Your task to perform on an android device: allow notifications from all sites in the chrome app Image 0: 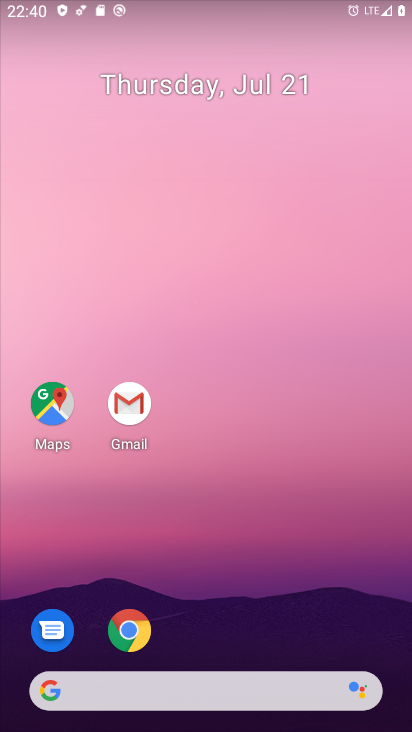
Step 0: drag from (230, 649) to (179, 258)
Your task to perform on an android device: allow notifications from all sites in the chrome app Image 1: 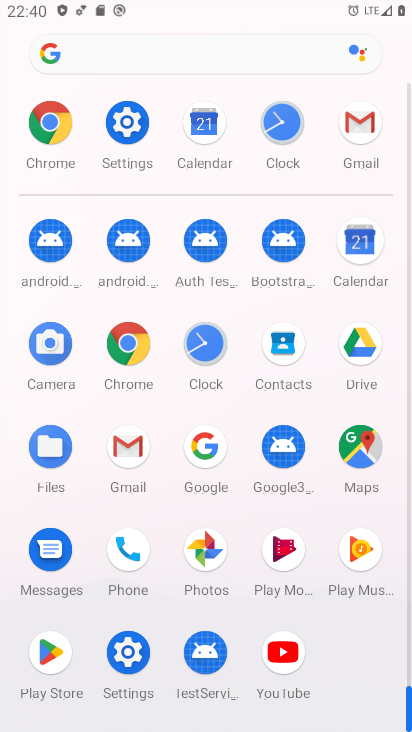
Step 1: click (121, 122)
Your task to perform on an android device: allow notifications from all sites in the chrome app Image 2: 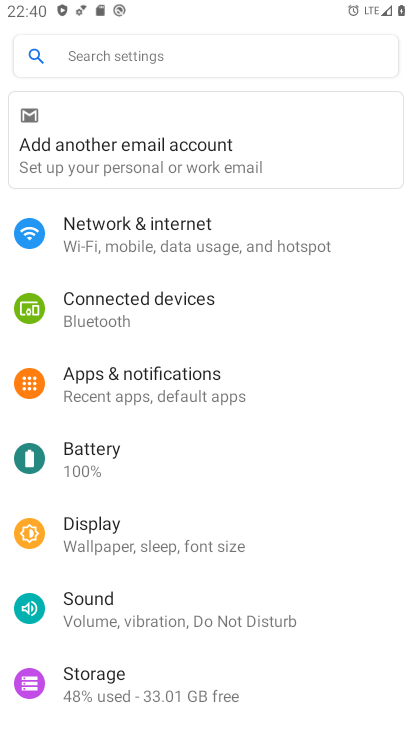
Step 2: click (135, 386)
Your task to perform on an android device: allow notifications from all sites in the chrome app Image 3: 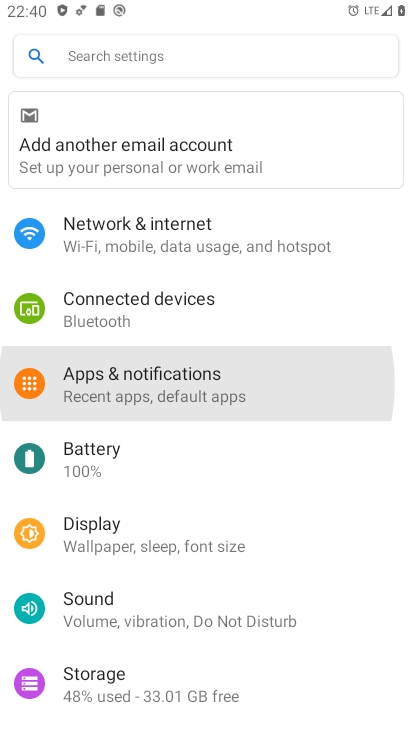
Step 3: click (129, 388)
Your task to perform on an android device: allow notifications from all sites in the chrome app Image 4: 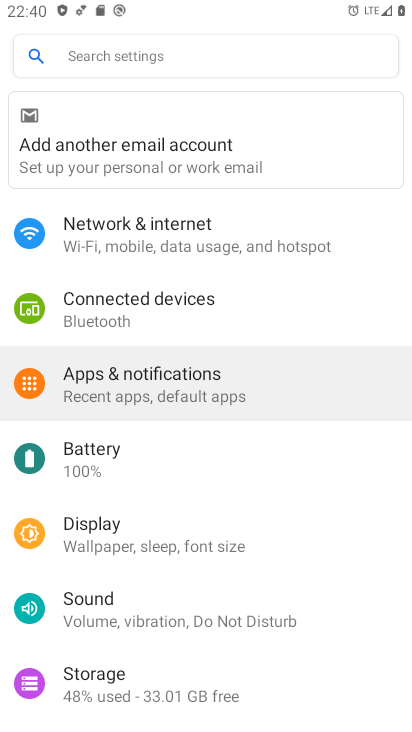
Step 4: click (129, 388)
Your task to perform on an android device: allow notifications from all sites in the chrome app Image 5: 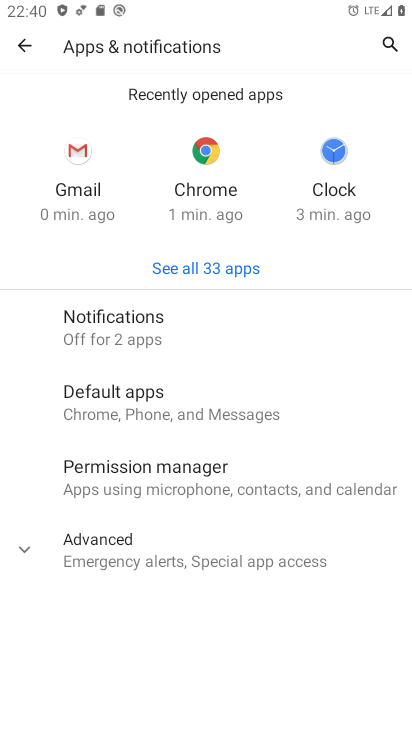
Step 5: click (122, 330)
Your task to perform on an android device: allow notifications from all sites in the chrome app Image 6: 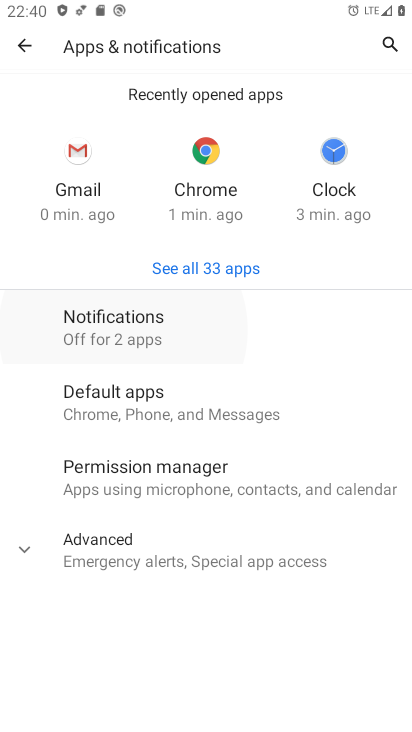
Step 6: click (125, 326)
Your task to perform on an android device: allow notifications from all sites in the chrome app Image 7: 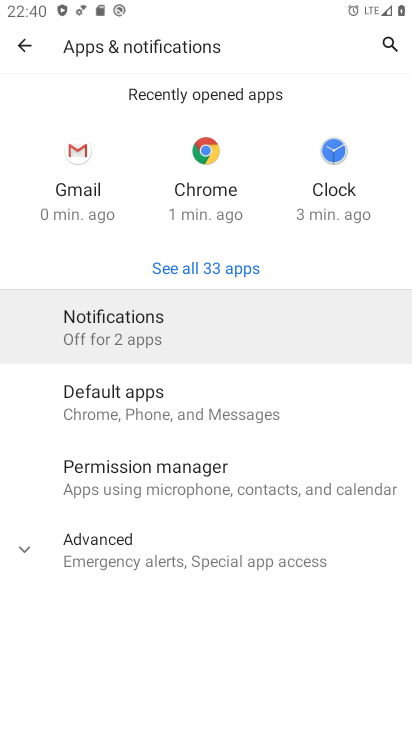
Step 7: click (128, 328)
Your task to perform on an android device: allow notifications from all sites in the chrome app Image 8: 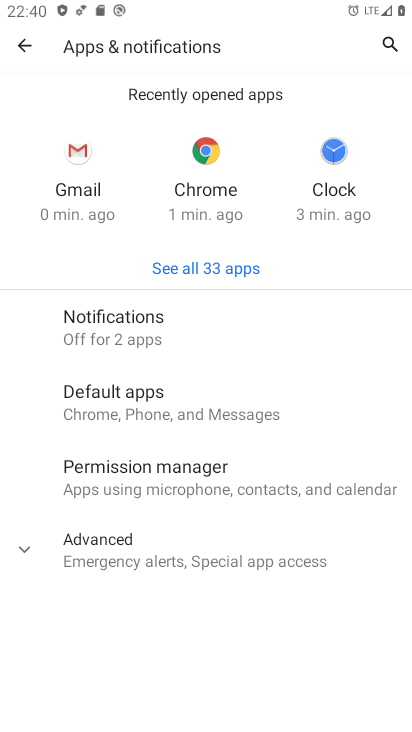
Step 8: click (129, 329)
Your task to perform on an android device: allow notifications from all sites in the chrome app Image 9: 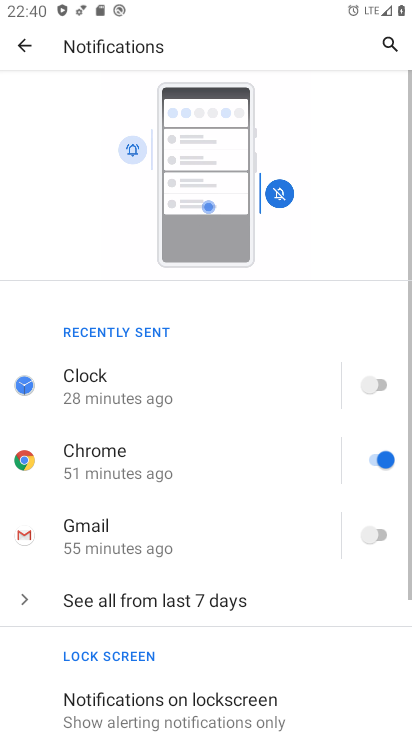
Step 9: drag from (263, 509) to (229, 193)
Your task to perform on an android device: allow notifications from all sites in the chrome app Image 10: 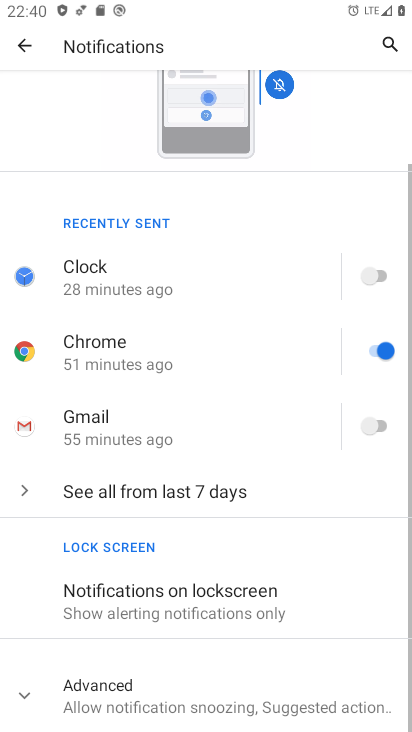
Step 10: drag from (282, 420) to (303, 164)
Your task to perform on an android device: allow notifications from all sites in the chrome app Image 11: 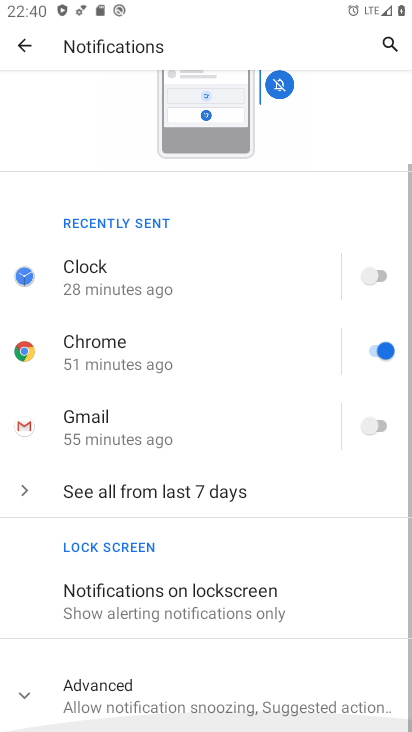
Step 11: drag from (304, 459) to (299, 64)
Your task to perform on an android device: allow notifications from all sites in the chrome app Image 12: 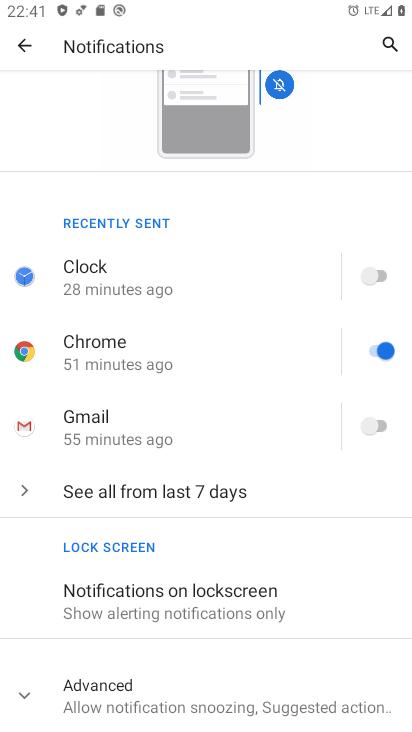
Step 12: drag from (167, 622) to (166, 309)
Your task to perform on an android device: allow notifications from all sites in the chrome app Image 13: 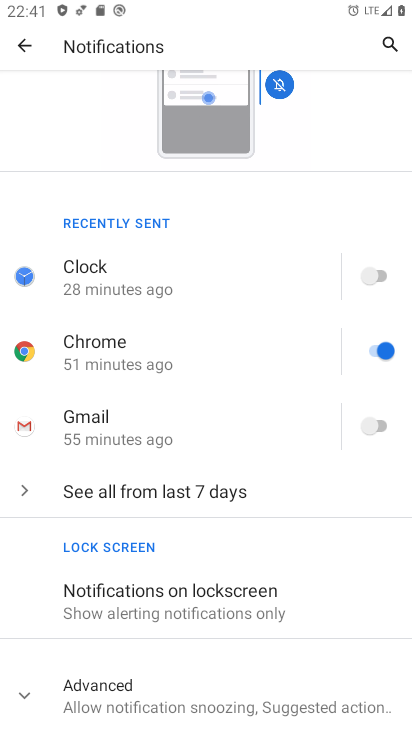
Step 13: click (24, 35)
Your task to perform on an android device: allow notifications from all sites in the chrome app Image 14: 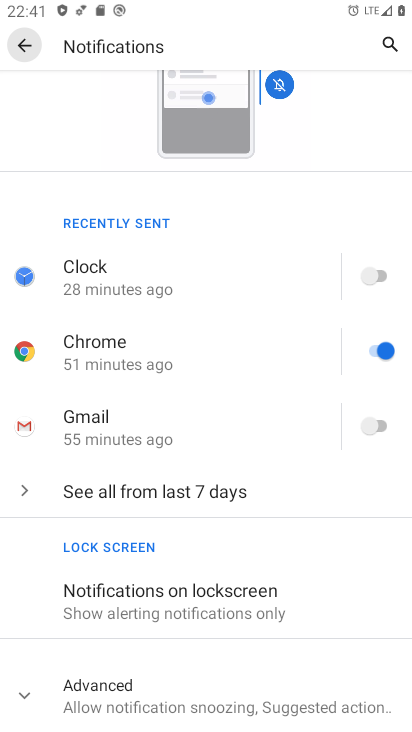
Step 14: click (28, 32)
Your task to perform on an android device: allow notifications from all sites in the chrome app Image 15: 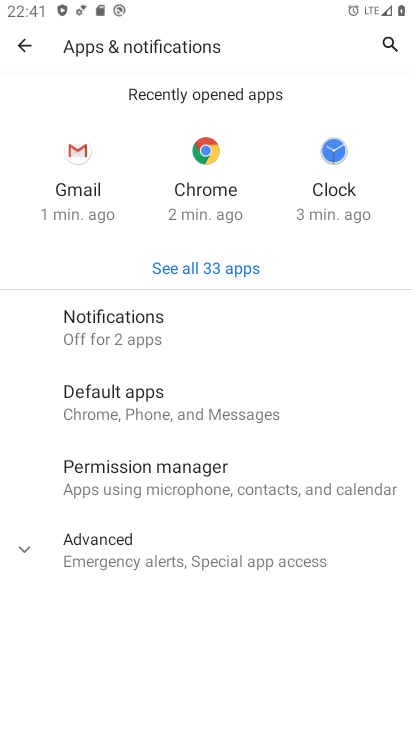
Step 15: click (12, 45)
Your task to perform on an android device: allow notifications from all sites in the chrome app Image 16: 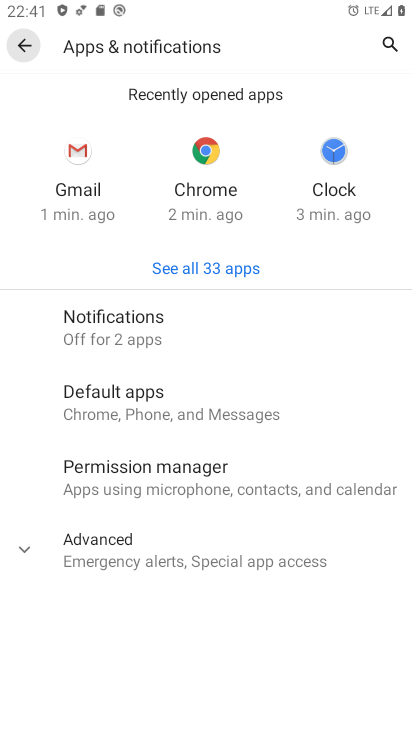
Step 16: click (15, 45)
Your task to perform on an android device: allow notifications from all sites in the chrome app Image 17: 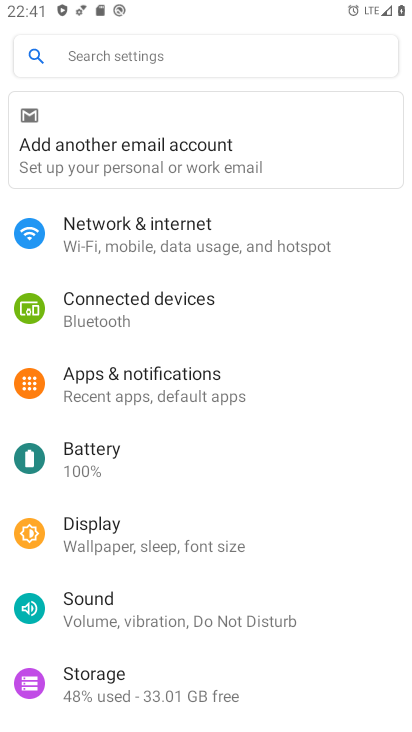
Step 17: press back button
Your task to perform on an android device: allow notifications from all sites in the chrome app Image 18: 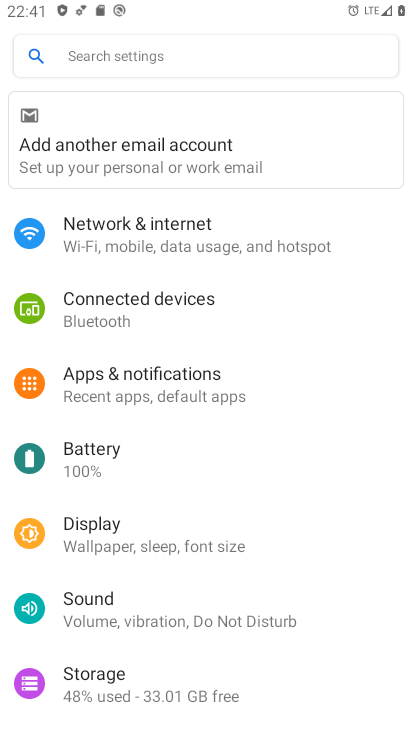
Step 18: press back button
Your task to perform on an android device: allow notifications from all sites in the chrome app Image 19: 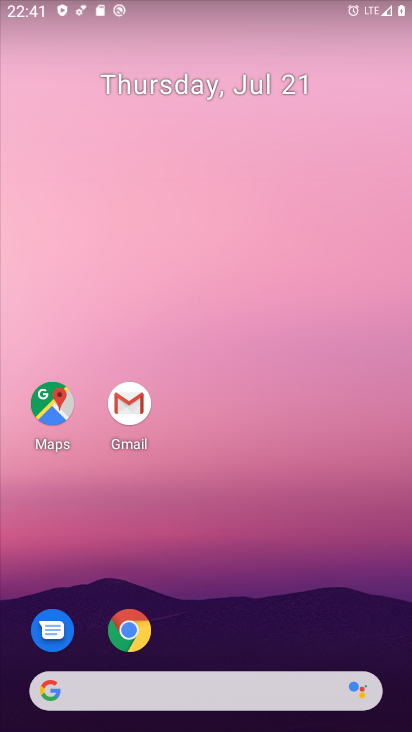
Step 19: drag from (310, 663) to (229, 76)
Your task to perform on an android device: allow notifications from all sites in the chrome app Image 20: 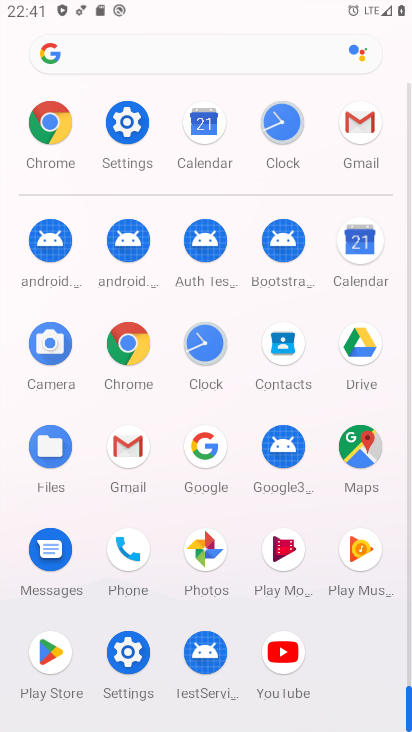
Step 20: click (52, 127)
Your task to perform on an android device: allow notifications from all sites in the chrome app Image 21: 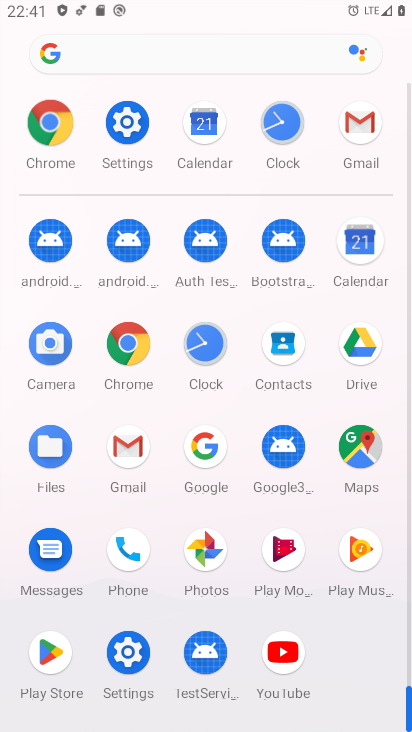
Step 21: click (50, 126)
Your task to perform on an android device: allow notifications from all sites in the chrome app Image 22: 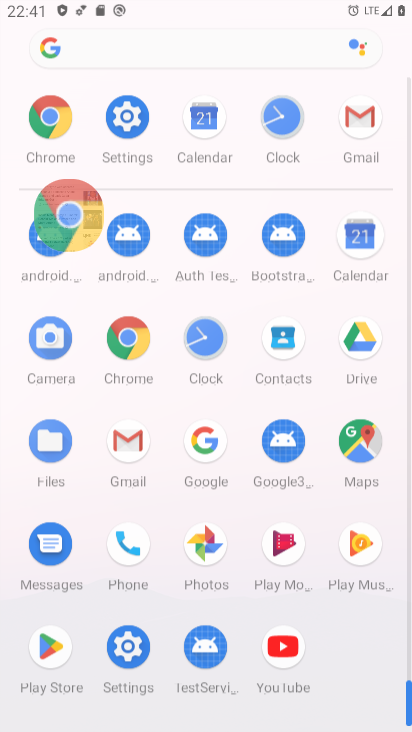
Step 22: click (50, 126)
Your task to perform on an android device: allow notifications from all sites in the chrome app Image 23: 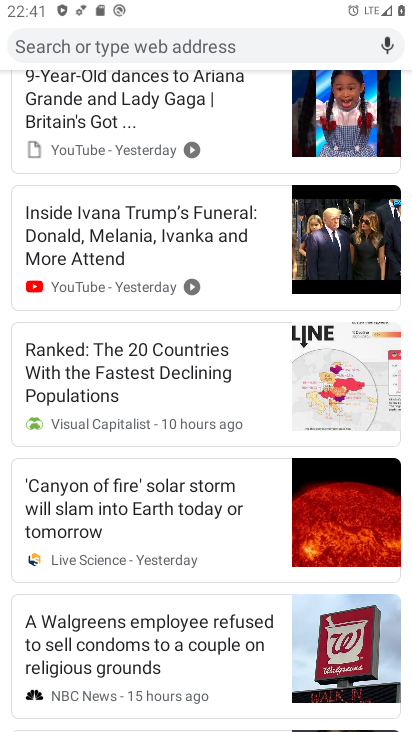
Step 23: drag from (200, 168) to (210, 715)
Your task to perform on an android device: allow notifications from all sites in the chrome app Image 24: 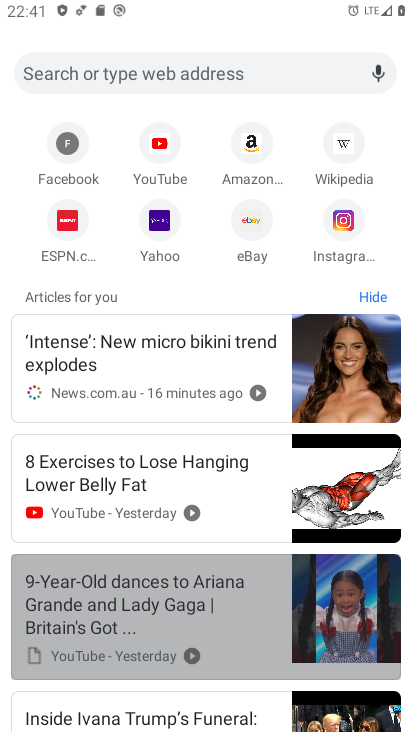
Step 24: drag from (174, 261) to (196, 606)
Your task to perform on an android device: allow notifications from all sites in the chrome app Image 25: 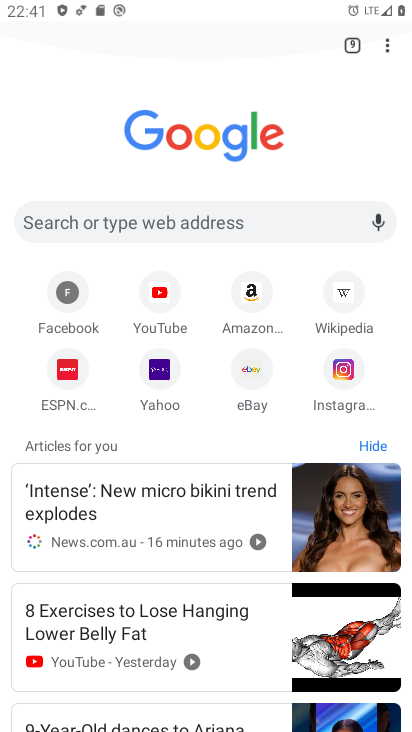
Step 25: drag from (171, 193) to (171, 399)
Your task to perform on an android device: allow notifications from all sites in the chrome app Image 26: 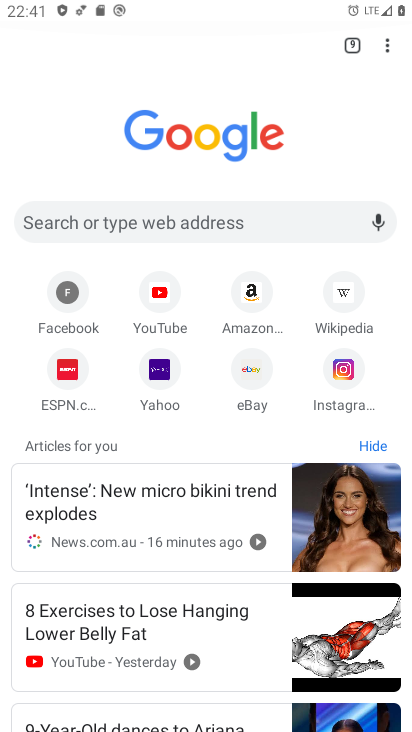
Step 26: click (217, 146)
Your task to perform on an android device: allow notifications from all sites in the chrome app Image 27: 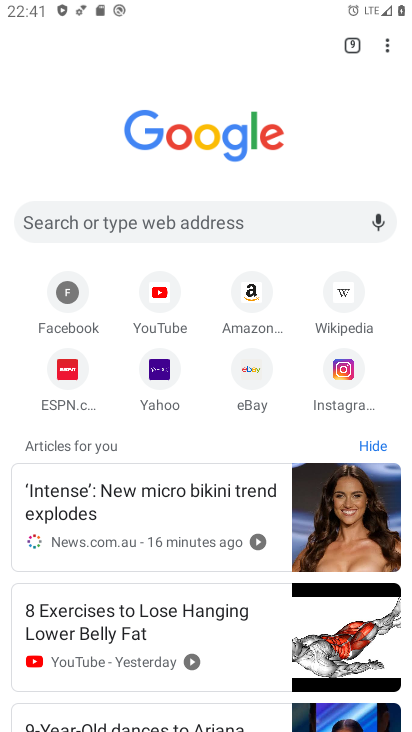
Step 27: drag from (389, 43) to (228, 382)
Your task to perform on an android device: allow notifications from all sites in the chrome app Image 28: 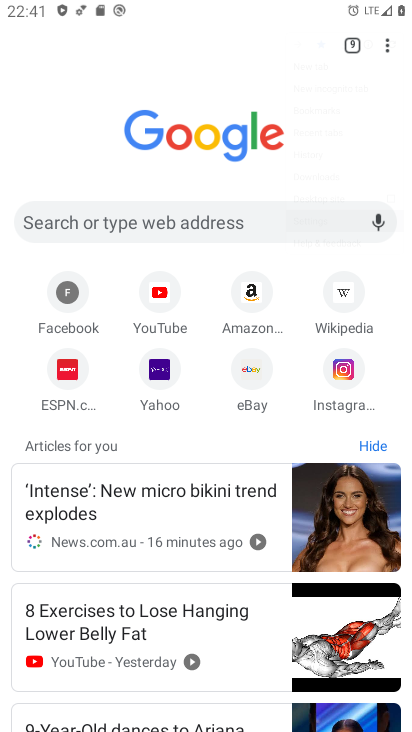
Step 28: click (229, 381)
Your task to perform on an android device: allow notifications from all sites in the chrome app Image 29: 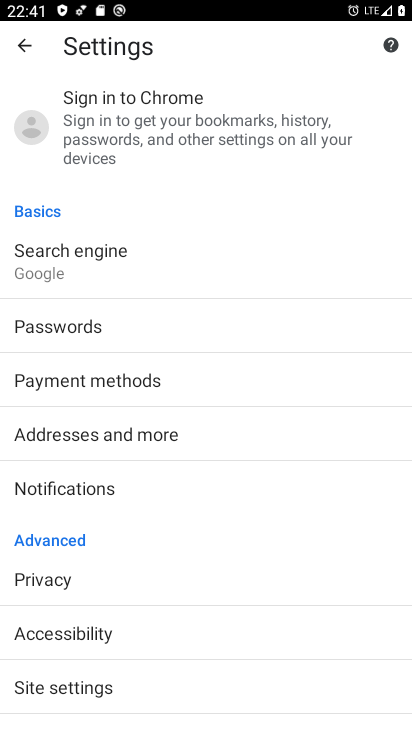
Step 29: drag from (166, 459) to (119, 98)
Your task to perform on an android device: allow notifications from all sites in the chrome app Image 30: 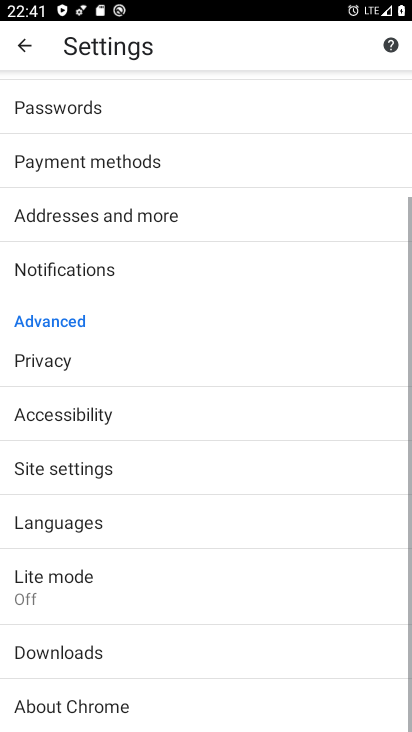
Step 30: drag from (108, 371) to (101, 121)
Your task to perform on an android device: allow notifications from all sites in the chrome app Image 31: 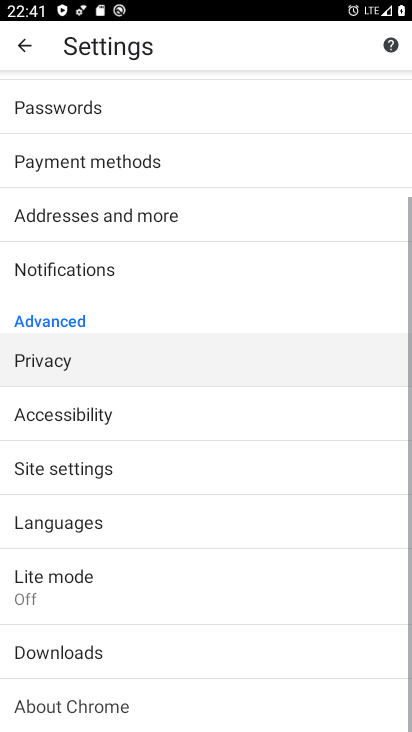
Step 31: drag from (99, 463) to (87, 251)
Your task to perform on an android device: allow notifications from all sites in the chrome app Image 32: 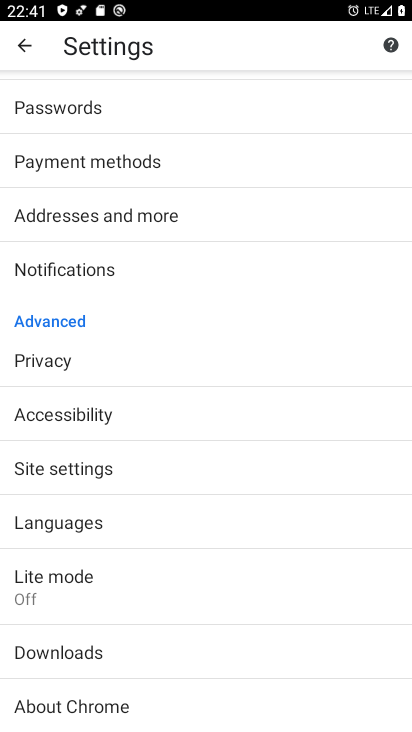
Step 32: drag from (62, 380) to (48, 139)
Your task to perform on an android device: allow notifications from all sites in the chrome app Image 33: 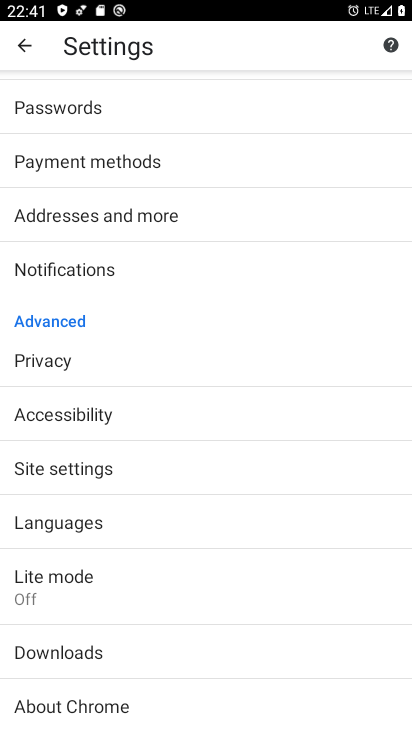
Step 33: click (57, 255)
Your task to perform on an android device: allow notifications from all sites in the chrome app Image 34: 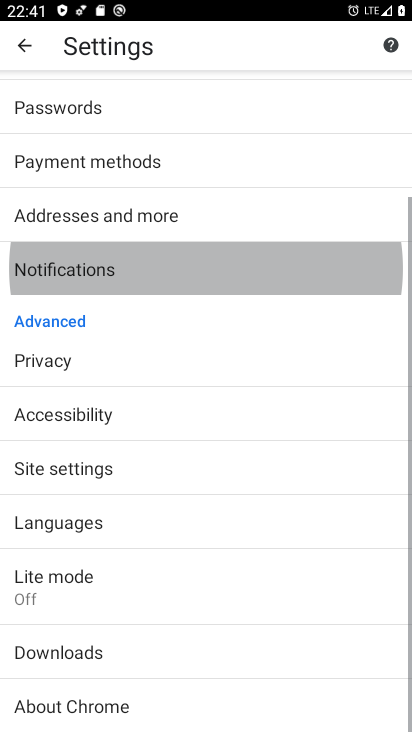
Step 34: click (61, 263)
Your task to perform on an android device: allow notifications from all sites in the chrome app Image 35: 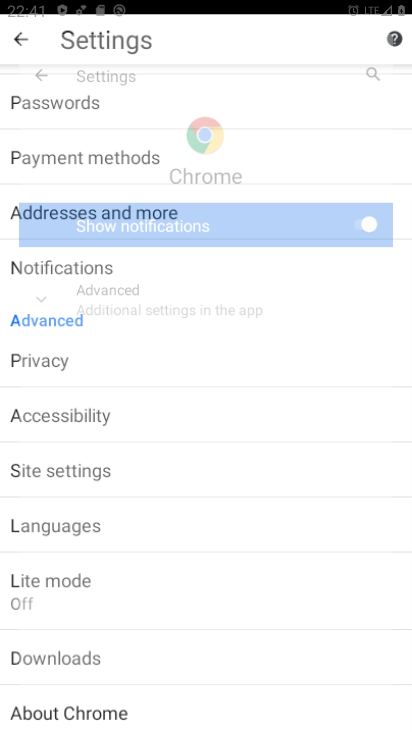
Step 35: click (62, 267)
Your task to perform on an android device: allow notifications from all sites in the chrome app Image 36: 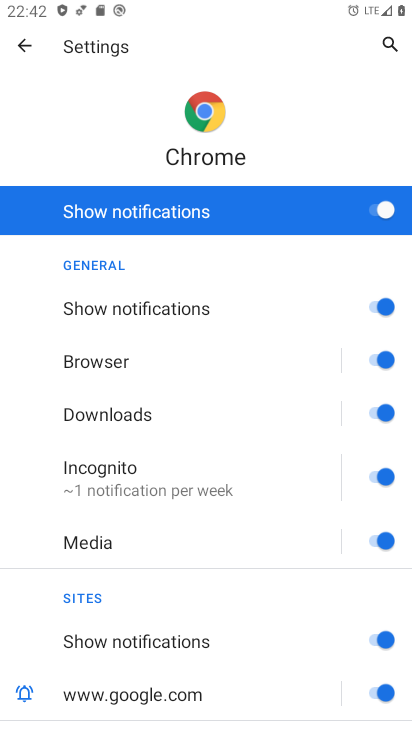
Step 36: task complete